Your task to perform on an android device: allow notifications from all sites in the chrome app Image 0: 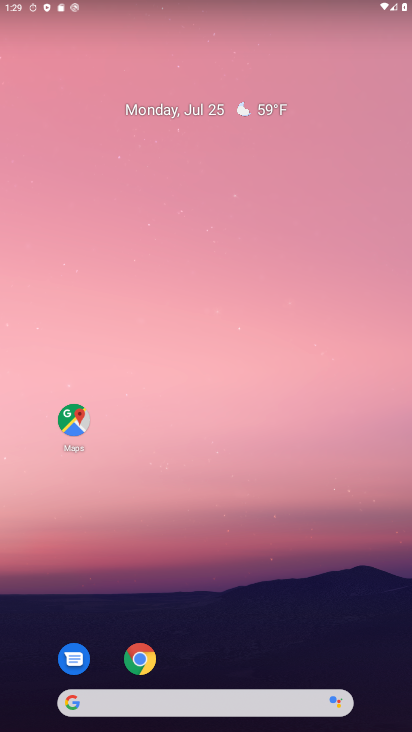
Step 0: click (144, 661)
Your task to perform on an android device: allow notifications from all sites in the chrome app Image 1: 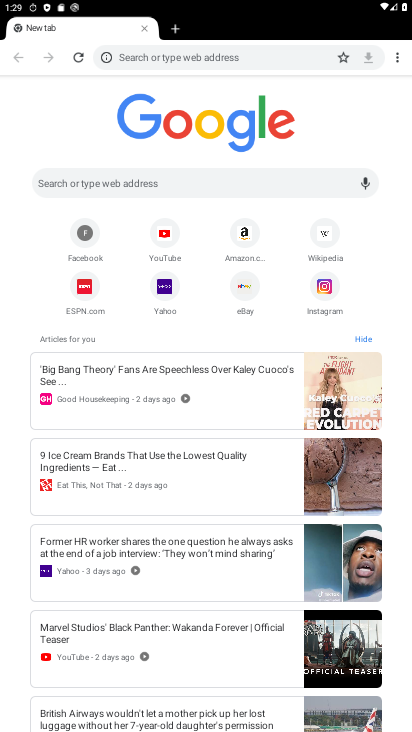
Step 1: click (397, 58)
Your task to perform on an android device: allow notifications from all sites in the chrome app Image 2: 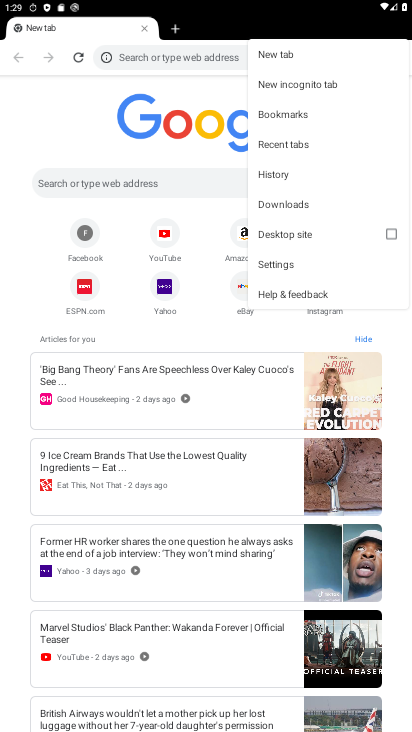
Step 2: click (273, 267)
Your task to perform on an android device: allow notifications from all sites in the chrome app Image 3: 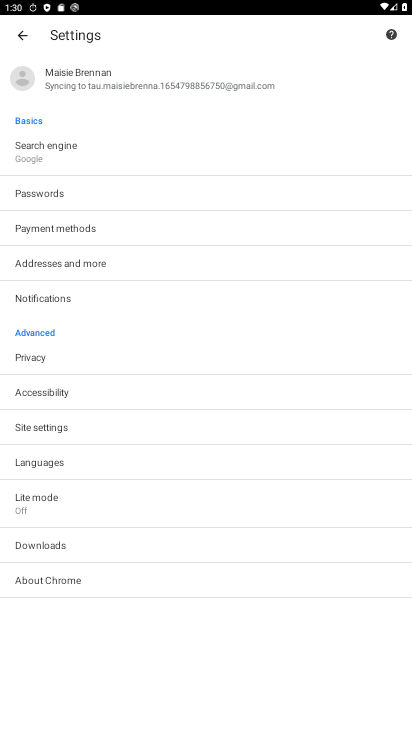
Step 3: click (33, 429)
Your task to perform on an android device: allow notifications from all sites in the chrome app Image 4: 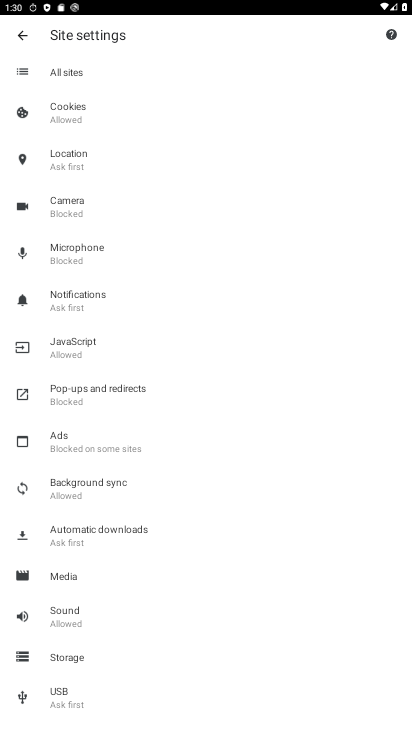
Step 4: click (76, 300)
Your task to perform on an android device: allow notifications from all sites in the chrome app Image 5: 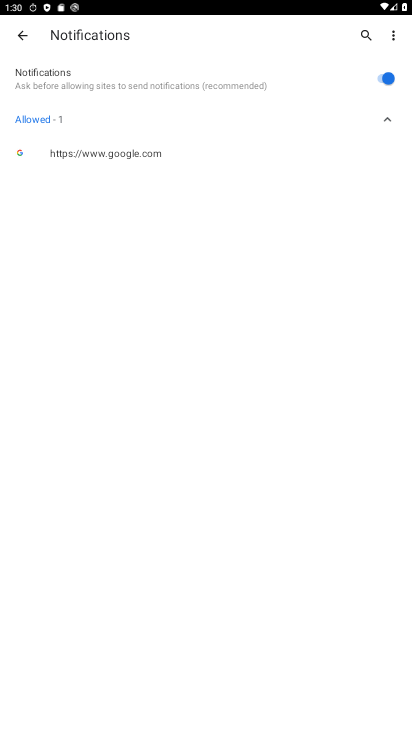
Step 5: task complete